Your task to perform on an android device: Show me recent news Image 0: 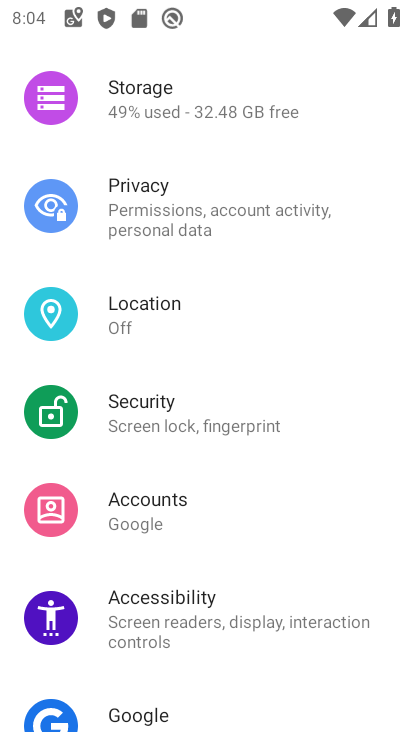
Step 0: press home button
Your task to perform on an android device: Show me recent news Image 1: 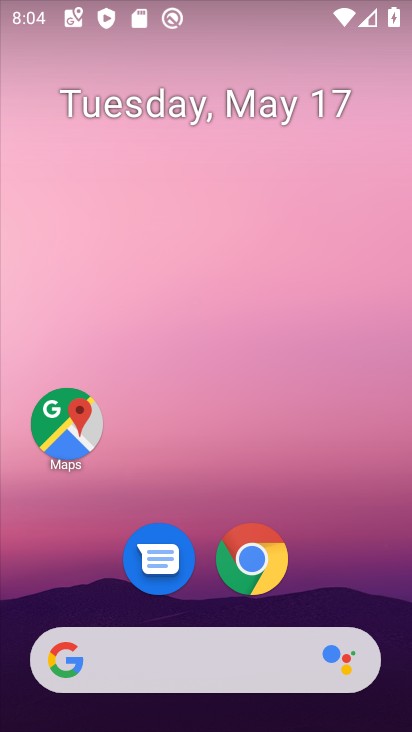
Step 1: drag from (229, 716) to (308, 68)
Your task to perform on an android device: Show me recent news Image 2: 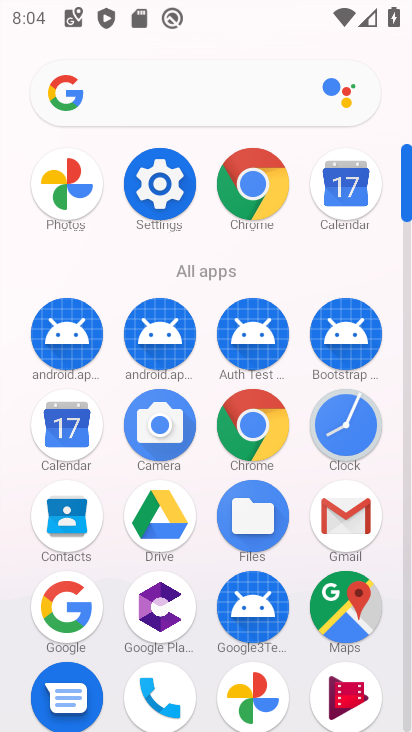
Step 2: click (222, 104)
Your task to perform on an android device: Show me recent news Image 3: 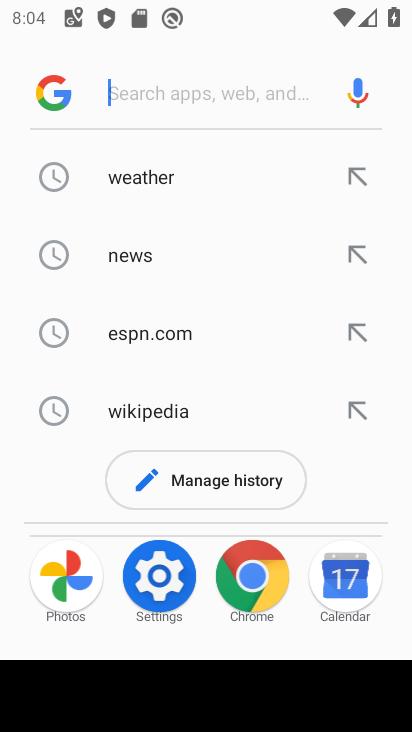
Step 3: type "recent news"
Your task to perform on an android device: Show me recent news Image 4: 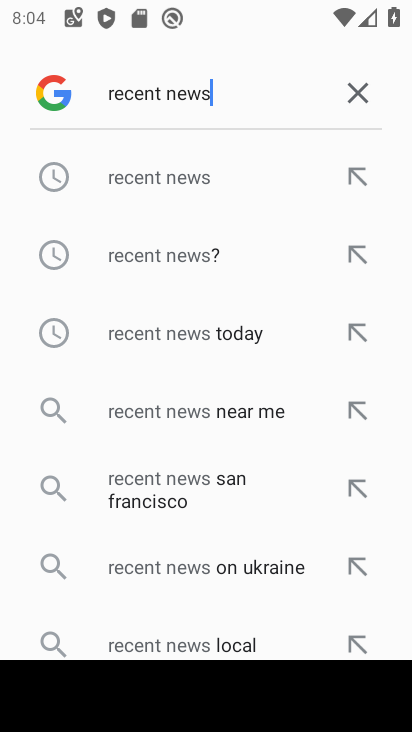
Step 4: click (235, 179)
Your task to perform on an android device: Show me recent news Image 5: 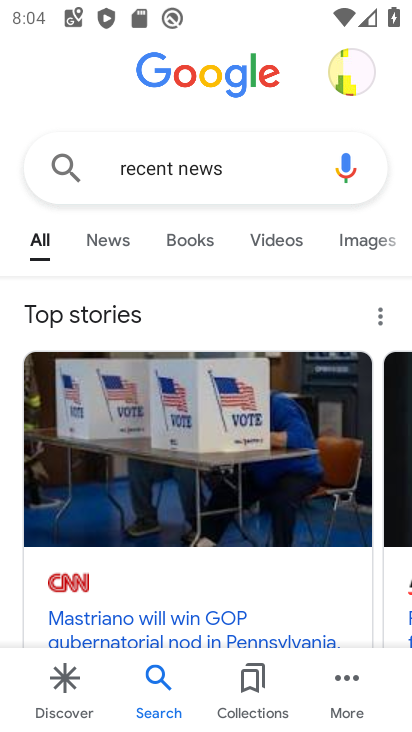
Step 5: task complete